Your task to perform on an android device: Check the news Image 0: 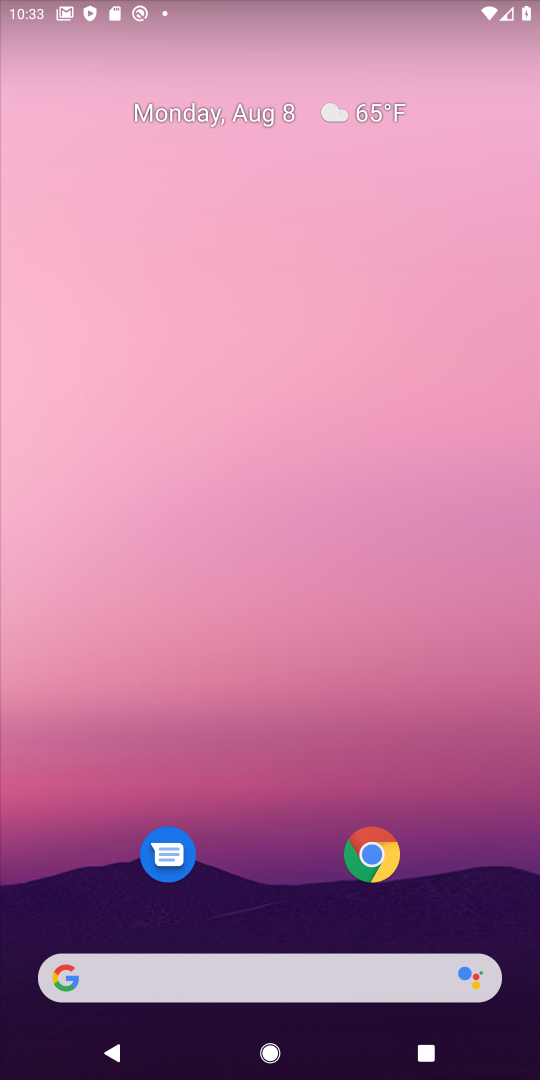
Step 0: click (167, 966)
Your task to perform on an android device: Check the news Image 1: 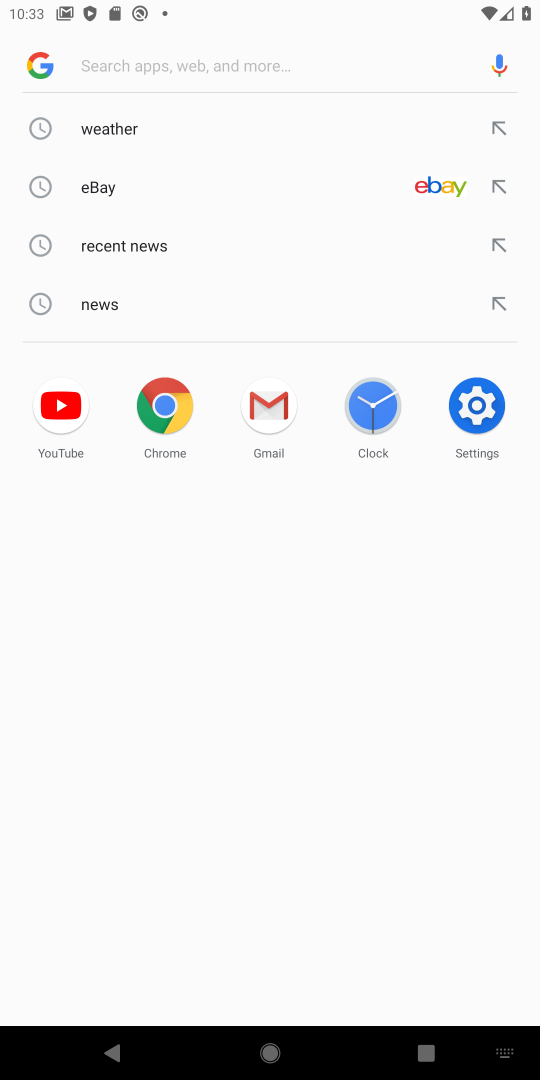
Step 1: click (166, 314)
Your task to perform on an android device: Check the news Image 2: 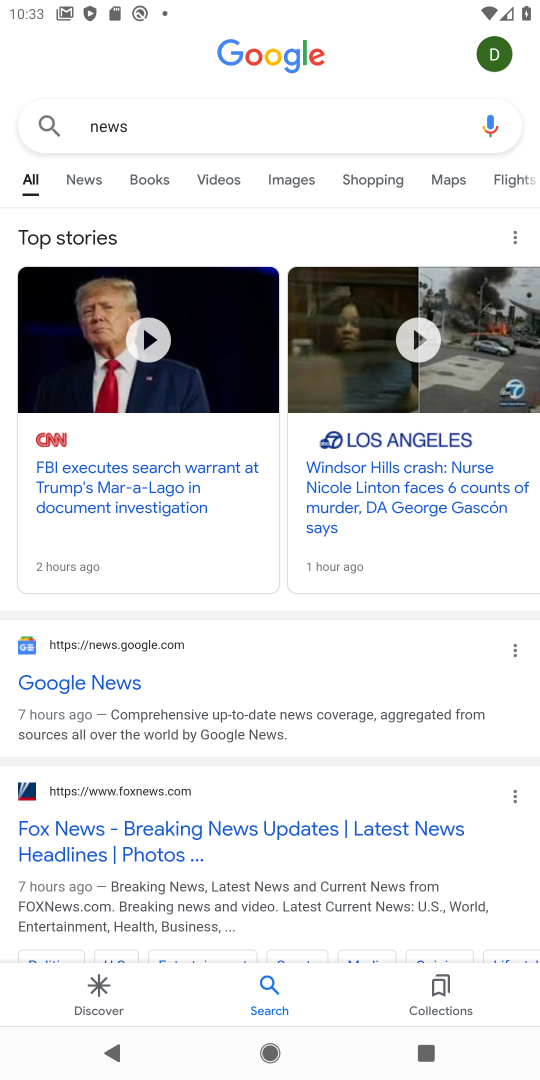
Step 2: click (66, 690)
Your task to perform on an android device: Check the news Image 3: 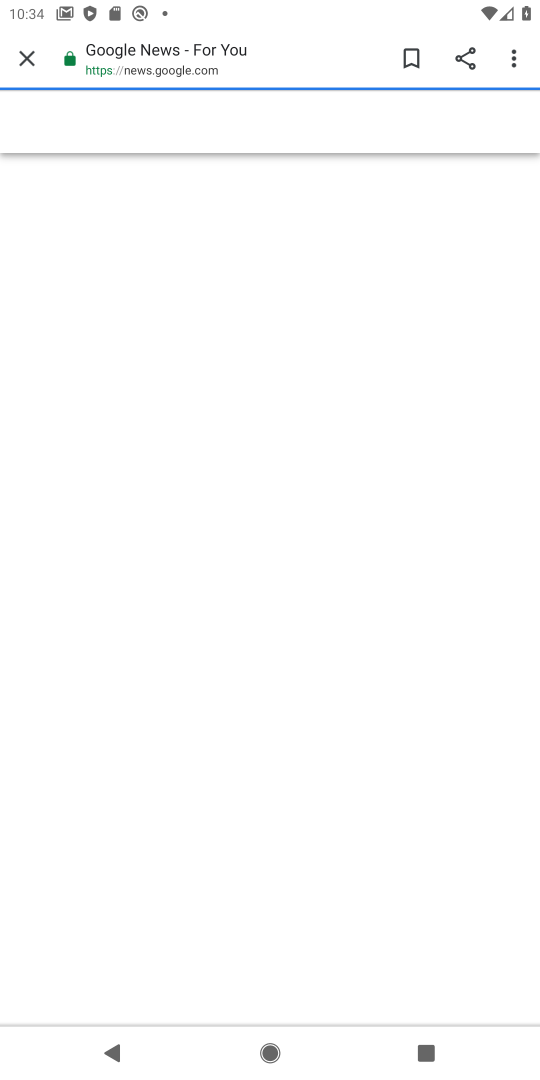
Step 3: task complete